Your task to perform on an android device: move an email to a new category in the gmail app Image 0: 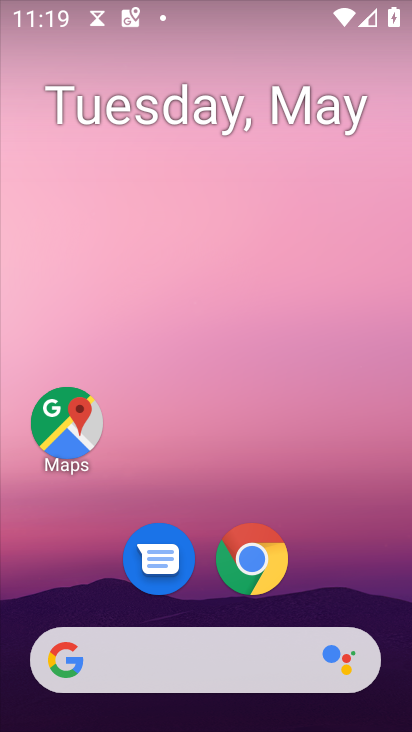
Step 0: drag from (345, 587) to (352, 60)
Your task to perform on an android device: move an email to a new category in the gmail app Image 1: 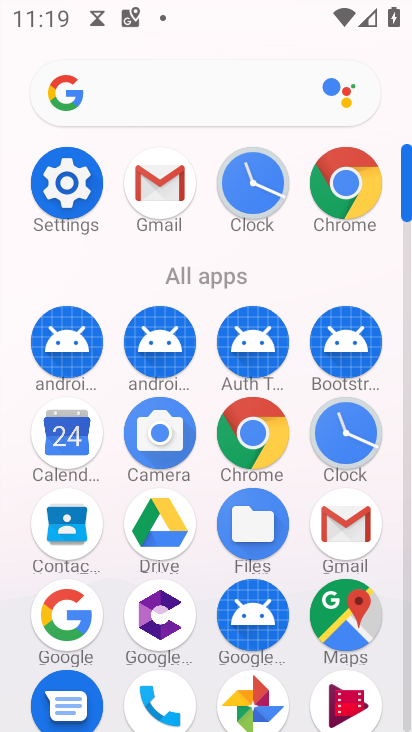
Step 1: click (161, 188)
Your task to perform on an android device: move an email to a new category in the gmail app Image 2: 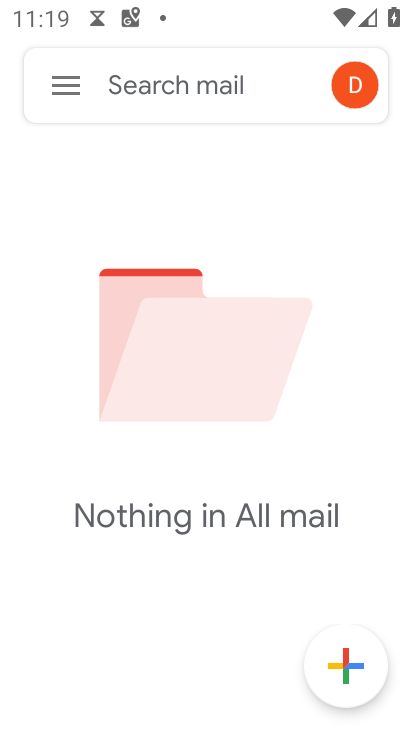
Step 2: click (77, 95)
Your task to perform on an android device: move an email to a new category in the gmail app Image 3: 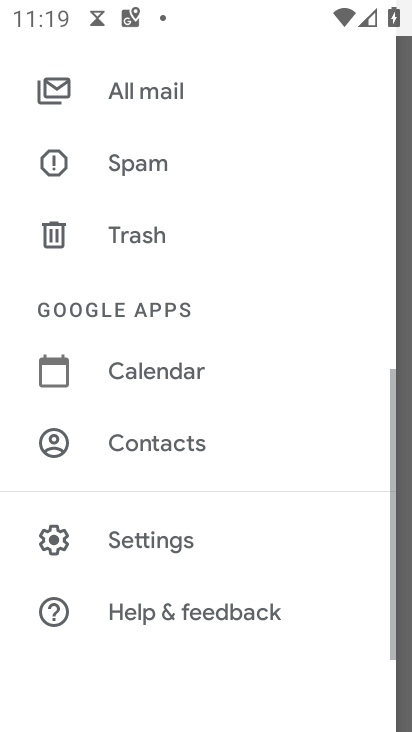
Step 3: drag from (232, 158) to (271, 666)
Your task to perform on an android device: move an email to a new category in the gmail app Image 4: 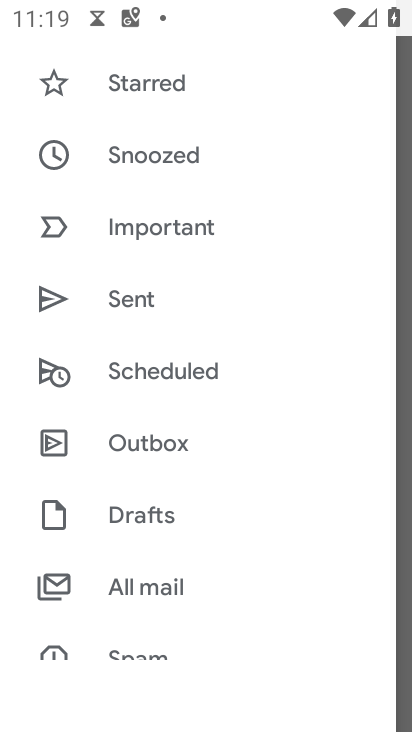
Step 4: drag from (249, 222) to (231, 619)
Your task to perform on an android device: move an email to a new category in the gmail app Image 5: 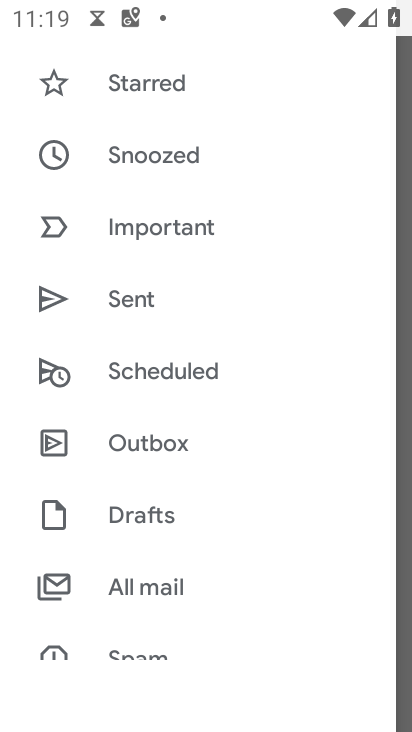
Step 5: drag from (265, 188) to (287, 671)
Your task to perform on an android device: move an email to a new category in the gmail app Image 6: 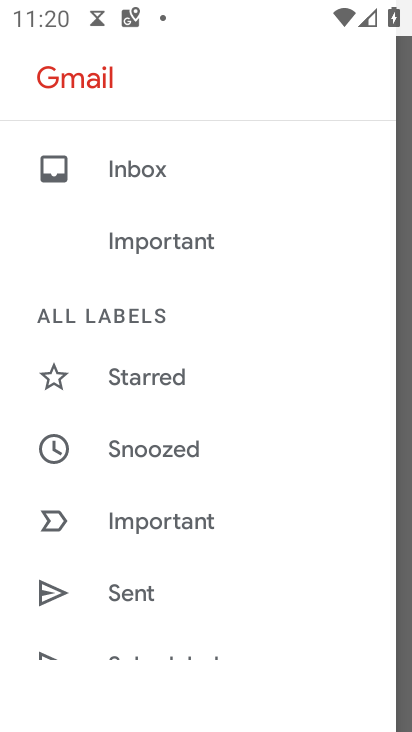
Step 6: drag from (193, 559) to (271, 35)
Your task to perform on an android device: move an email to a new category in the gmail app Image 7: 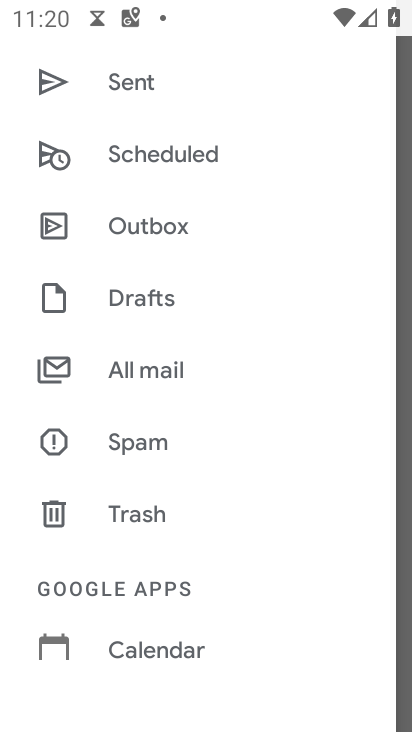
Step 7: drag from (176, 527) to (273, 106)
Your task to perform on an android device: move an email to a new category in the gmail app Image 8: 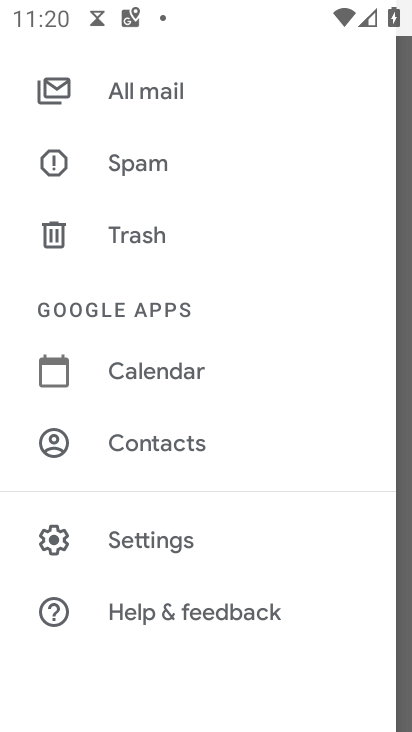
Step 8: click (117, 537)
Your task to perform on an android device: move an email to a new category in the gmail app Image 9: 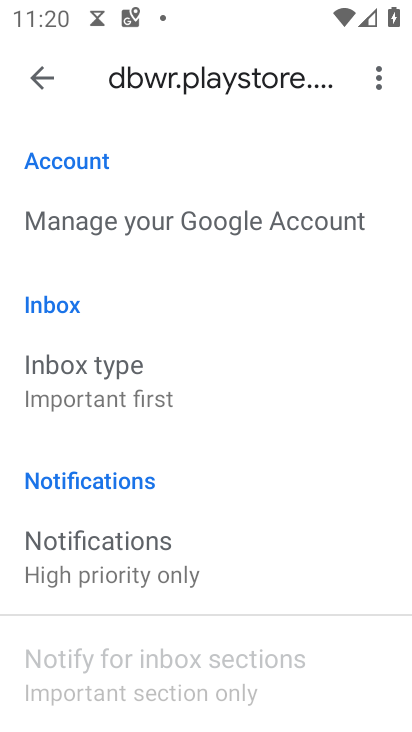
Step 9: click (139, 376)
Your task to perform on an android device: move an email to a new category in the gmail app Image 10: 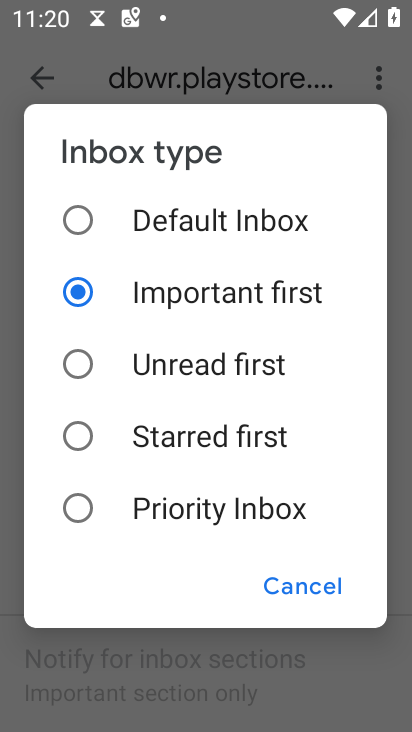
Step 10: click (139, 376)
Your task to perform on an android device: move an email to a new category in the gmail app Image 11: 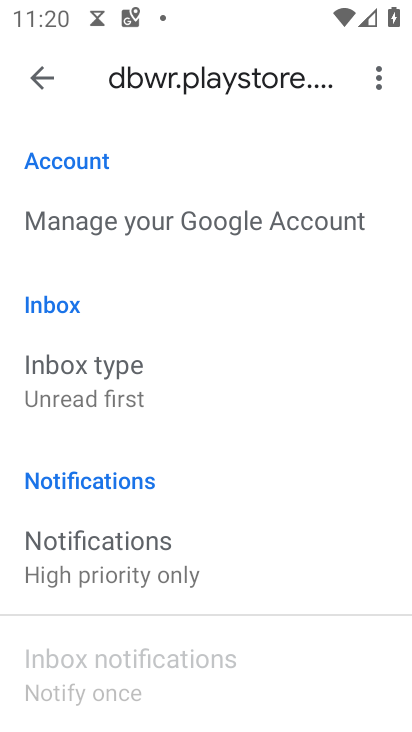
Step 11: task complete